Your task to perform on an android device: Add razer blade to the cart on walmart, then select checkout. Image 0: 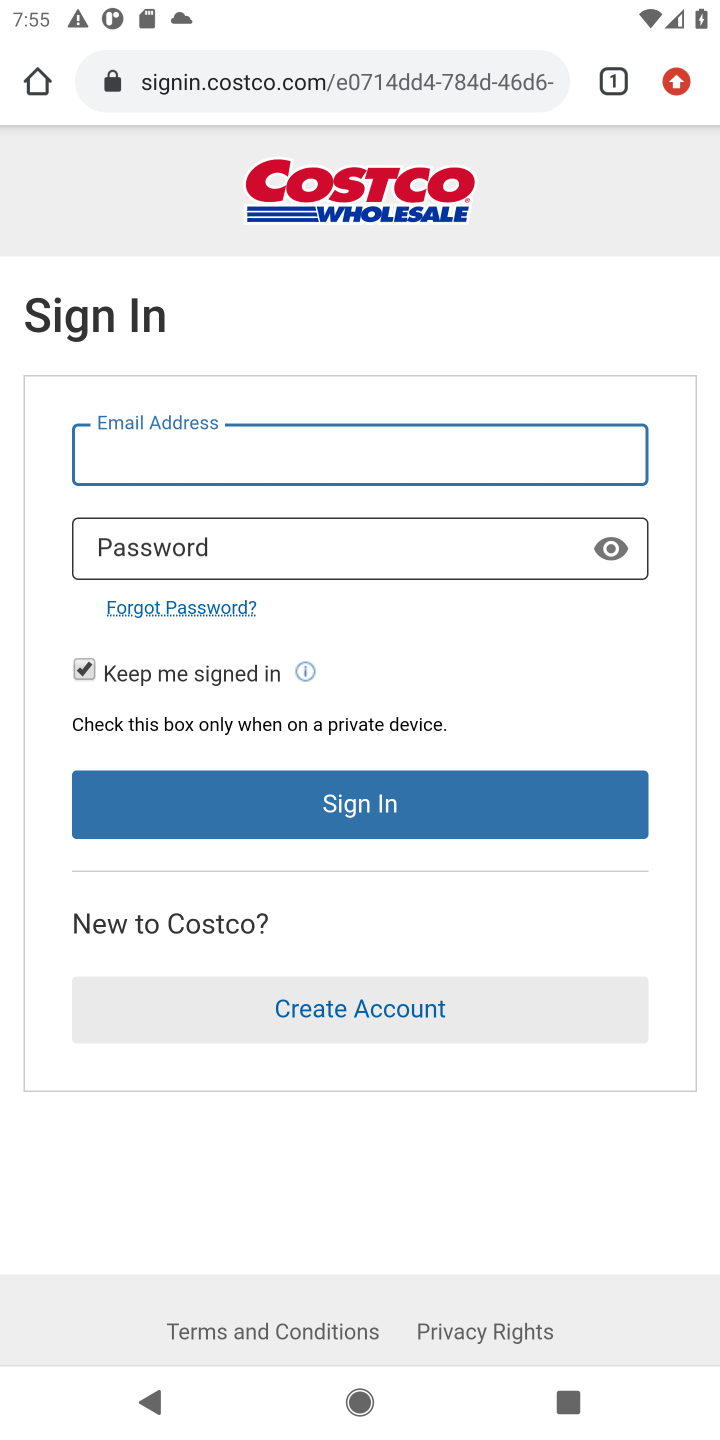
Step 0: press home button
Your task to perform on an android device: Add razer blade to the cart on walmart, then select checkout. Image 1: 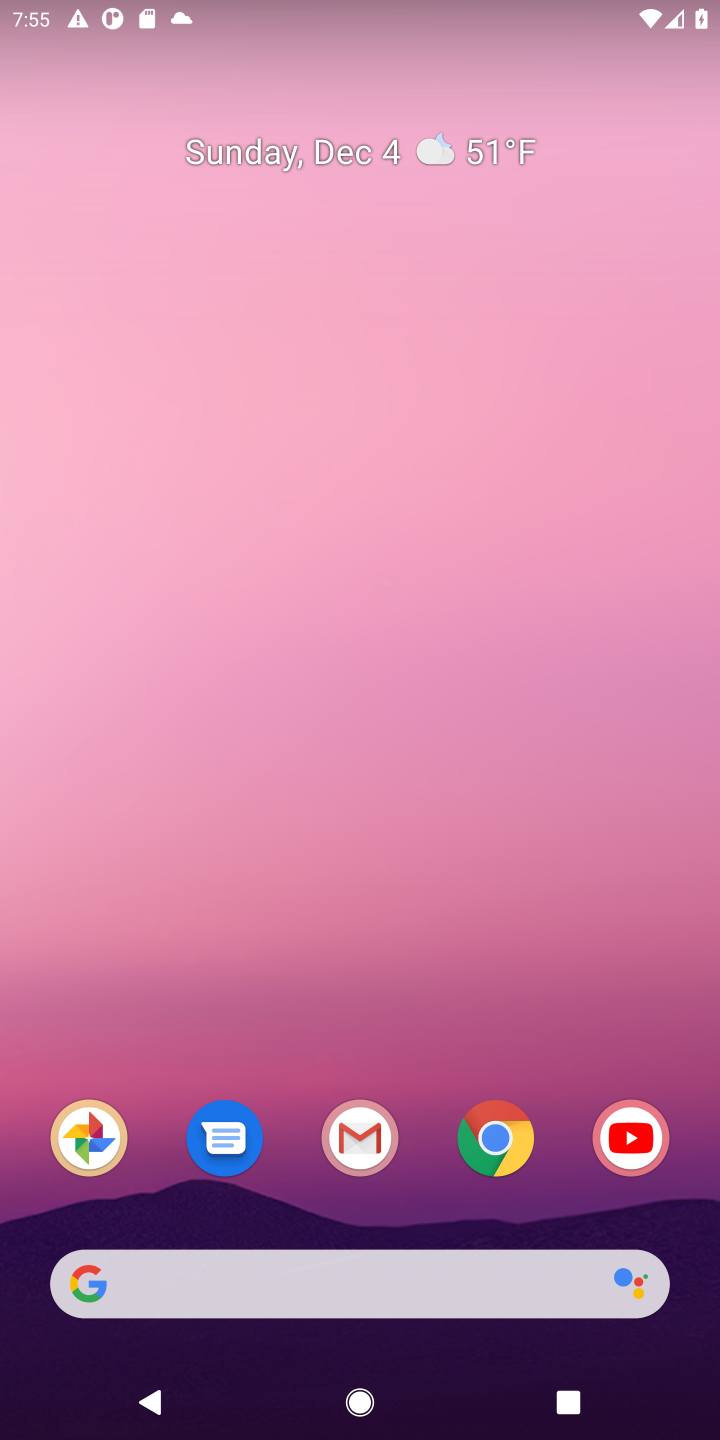
Step 1: click (506, 1135)
Your task to perform on an android device: Add razer blade to the cart on walmart, then select checkout. Image 2: 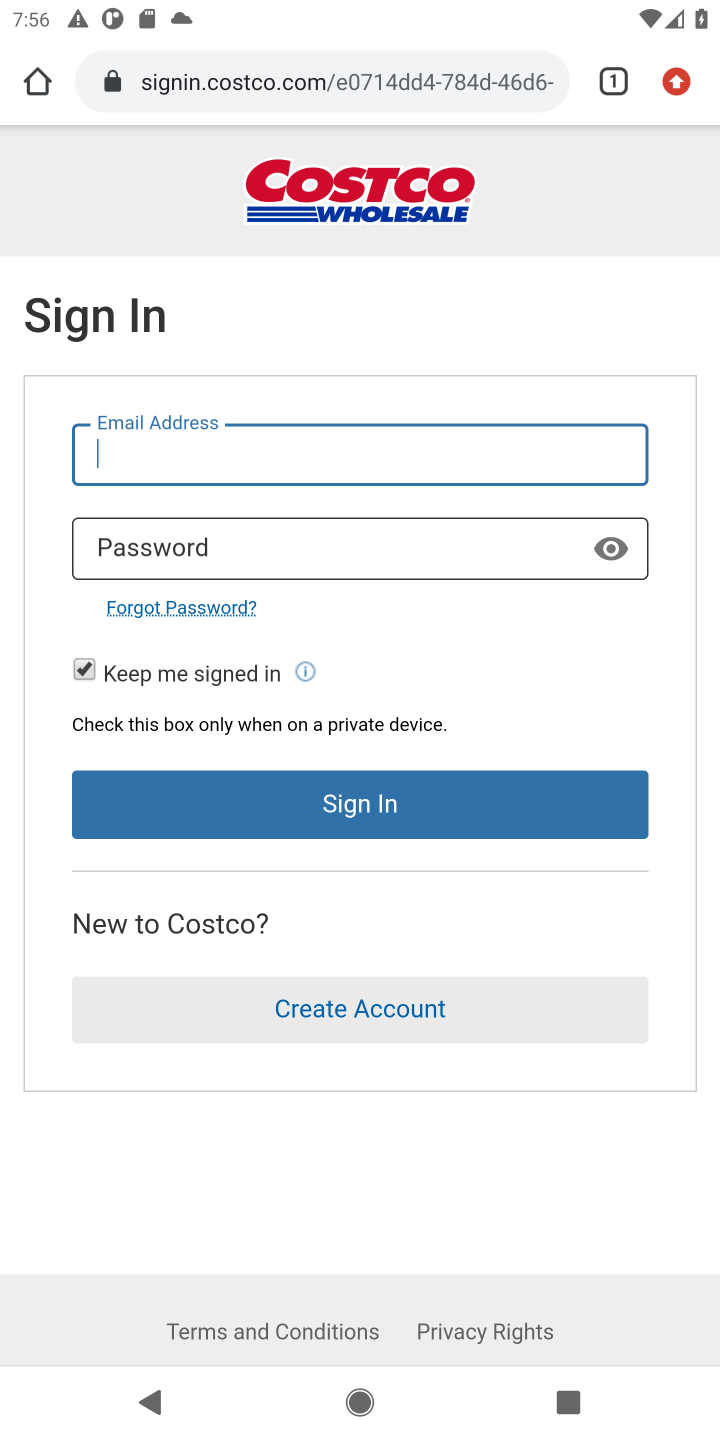
Step 2: click (421, 73)
Your task to perform on an android device: Add razer blade to the cart on walmart, then select checkout. Image 3: 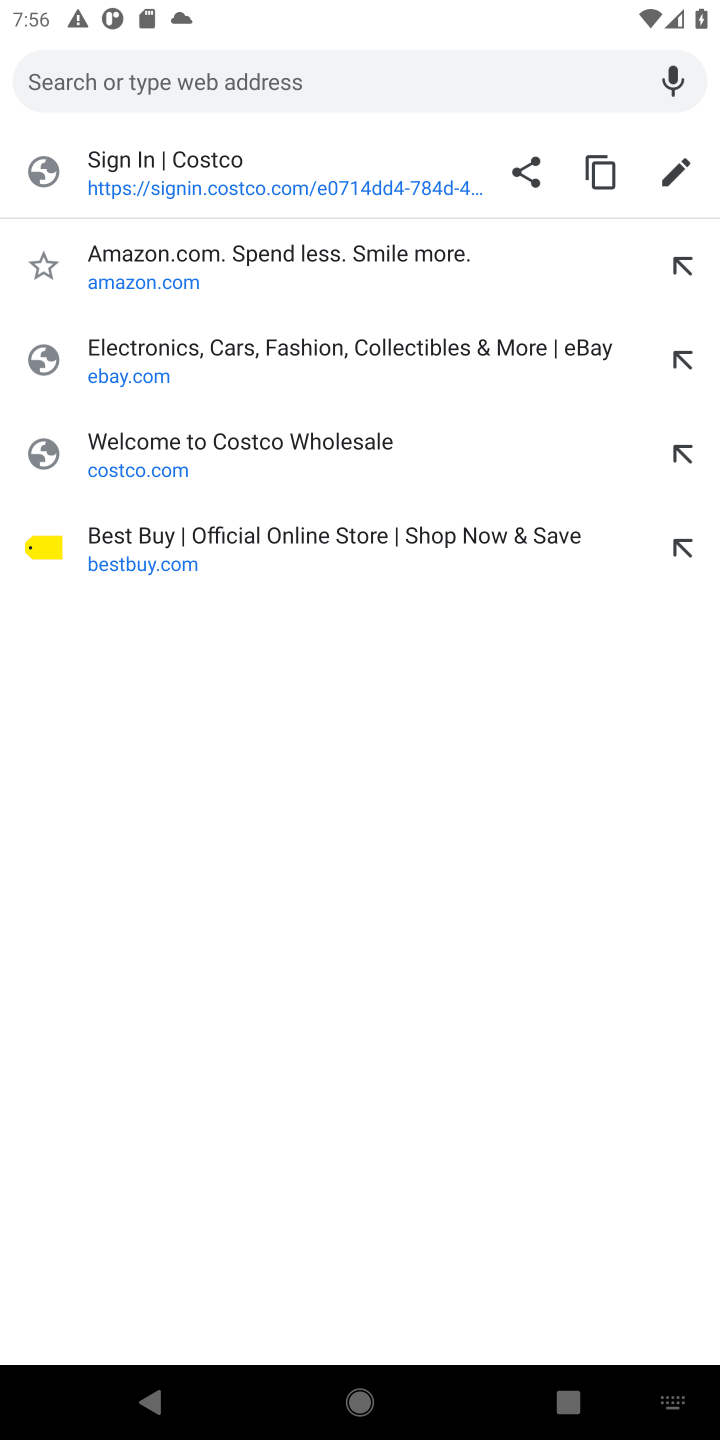
Step 3: type "walmart"
Your task to perform on an android device: Add razer blade to the cart on walmart, then select checkout. Image 4: 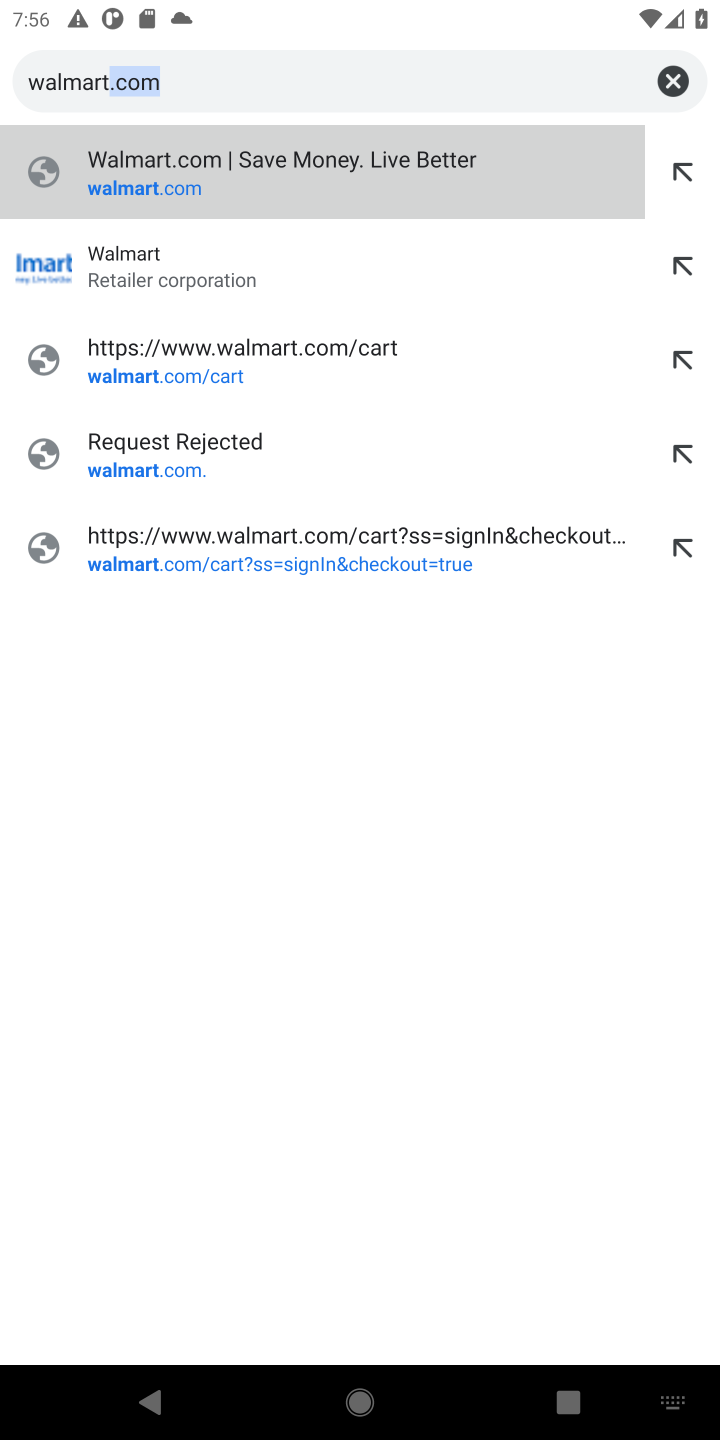
Step 4: press enter
Your task to perform on an android device: Add razer blade to the cart on walmart, then select checkout. Image 5: 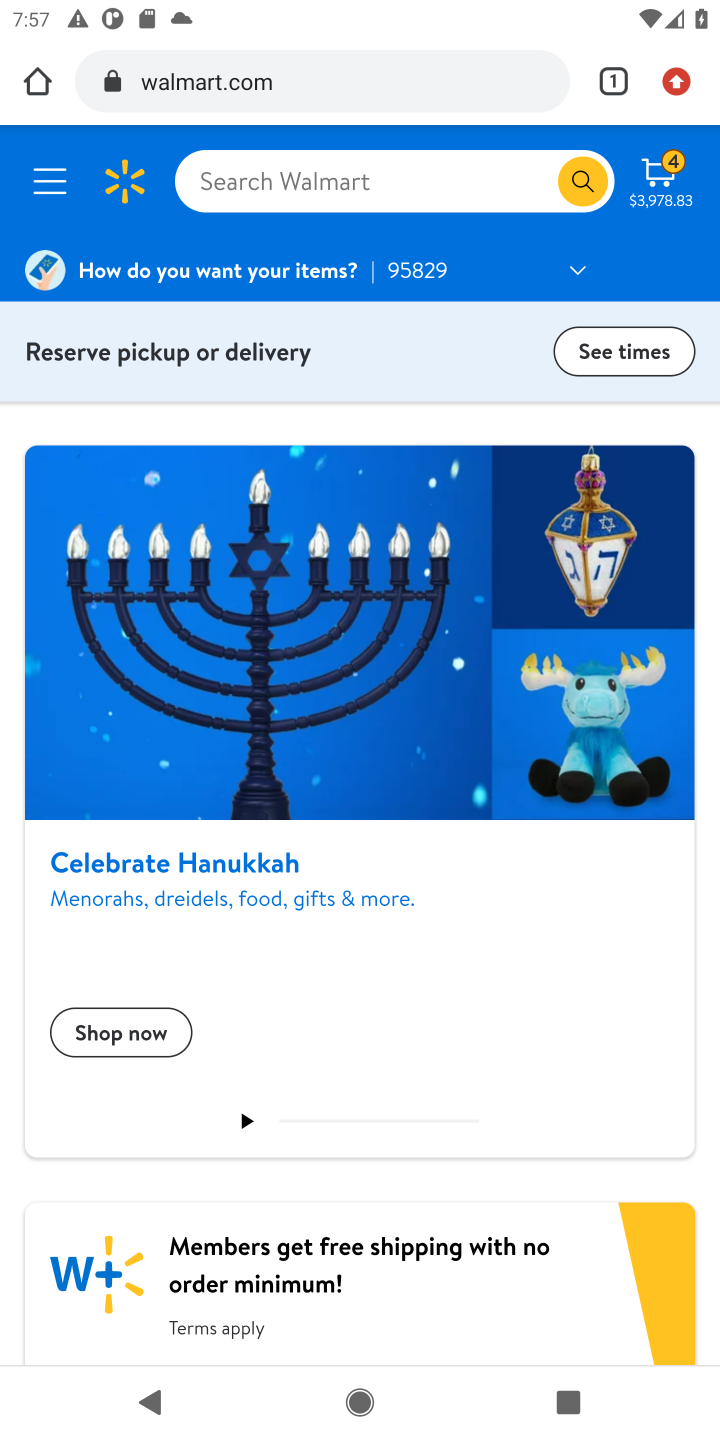
Step 5: click (360, 174)
Your task to perform on an android device: Add razer blade to the cart on walmart, then select checkout. Image 6: 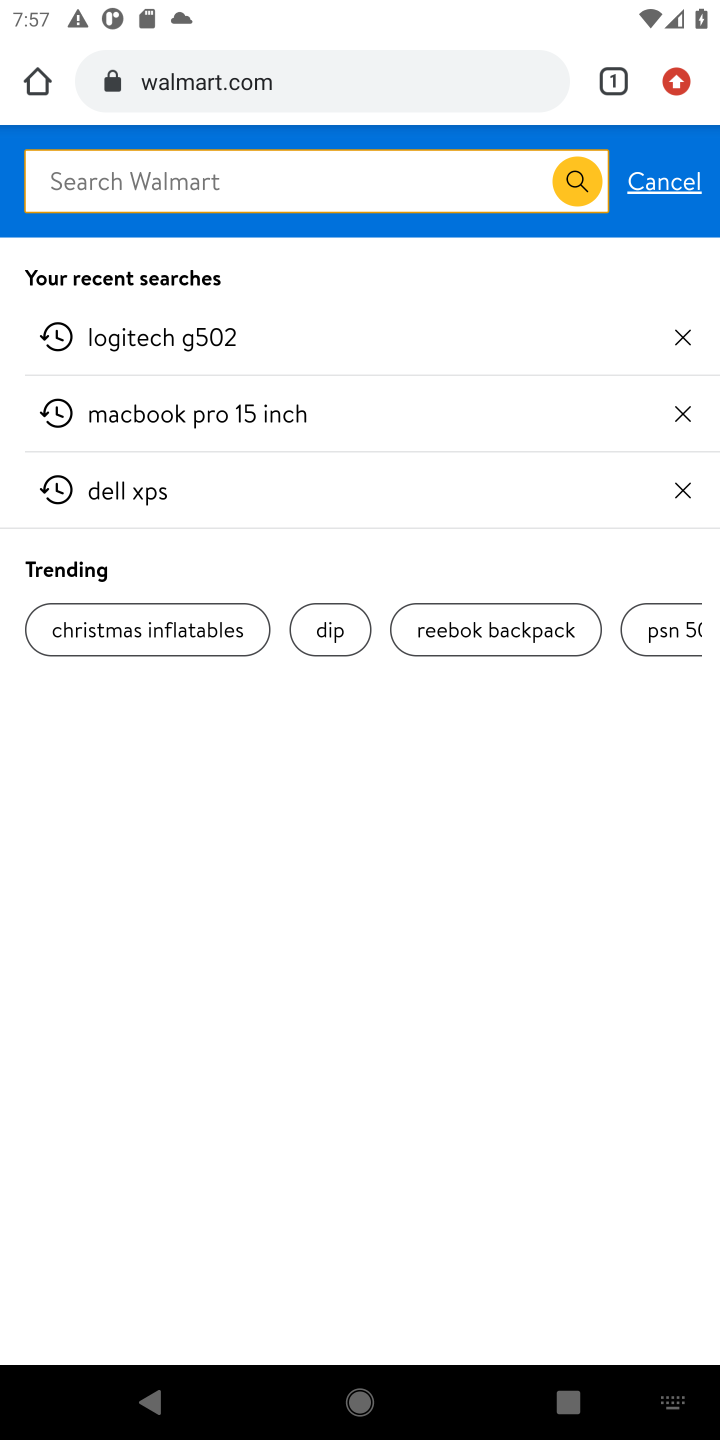
Step 6: type " razer blade"
Your task to perform on an android device: Add razer blade to the cart on walmart, then select checkout. Image 7: 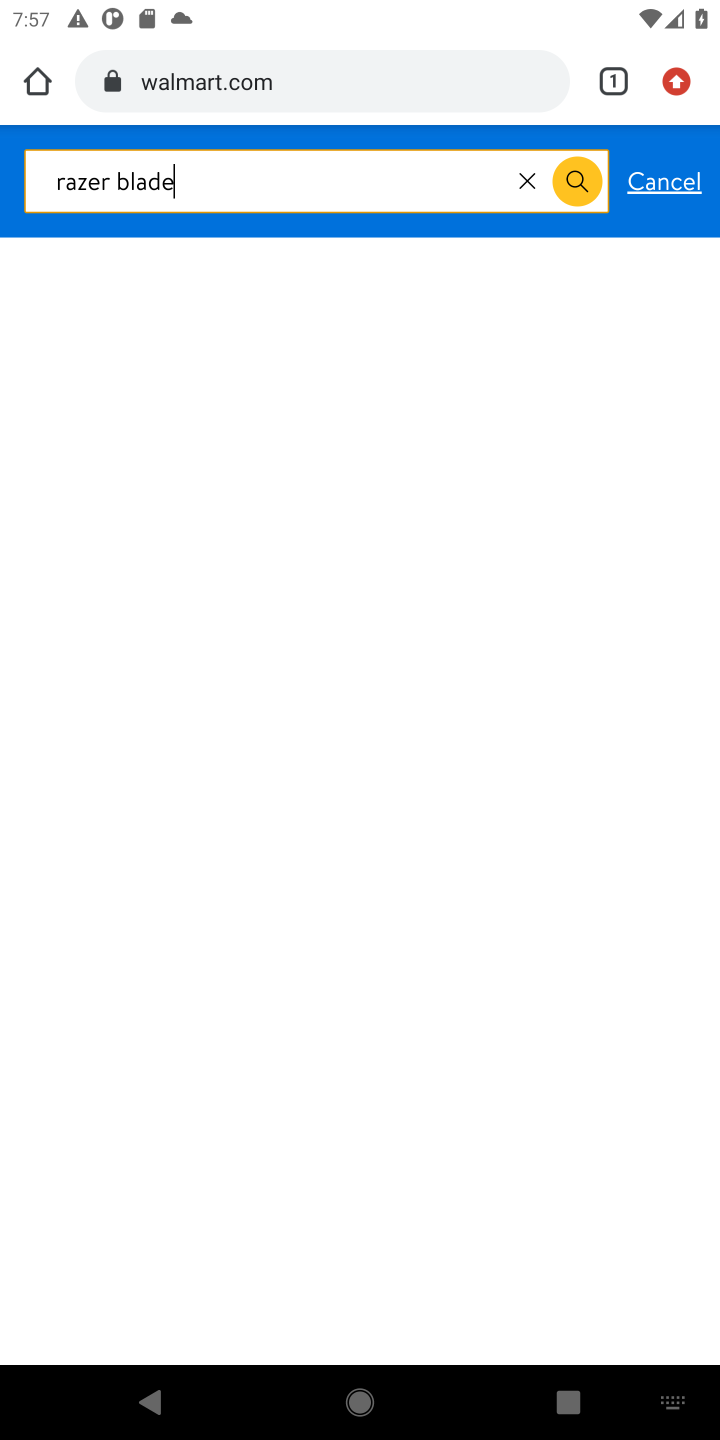
Step 7: press enter
Your task to perform on an android device: Add razer blade to the cart on walmart, then select checkout. Image 8: 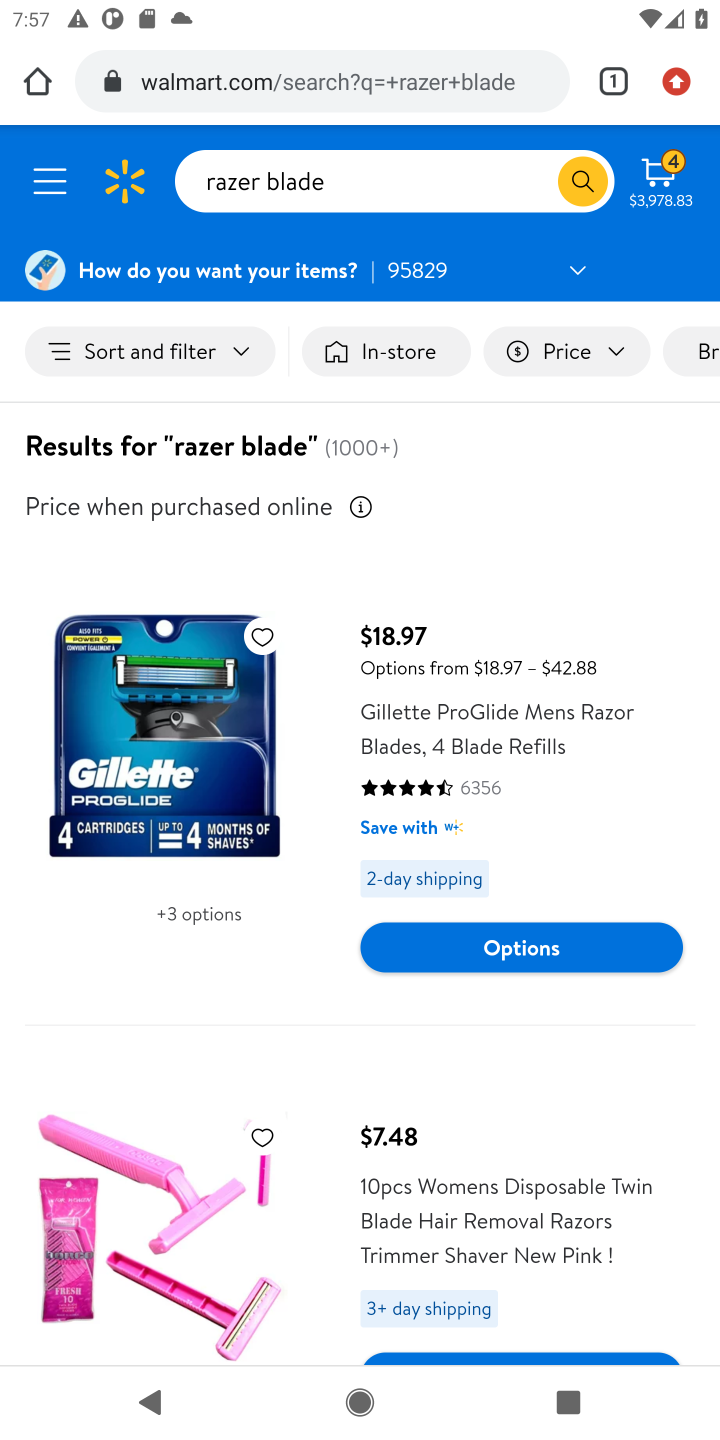
Step 8: task complete